Your task to perform on an android device: Open wifi settings Image 0: 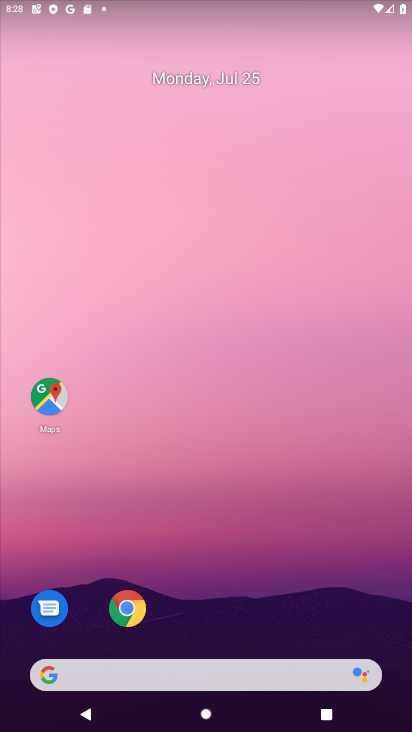
Step 0: press home button
Your task to perform on an android device: Open wifi settings Image 1: 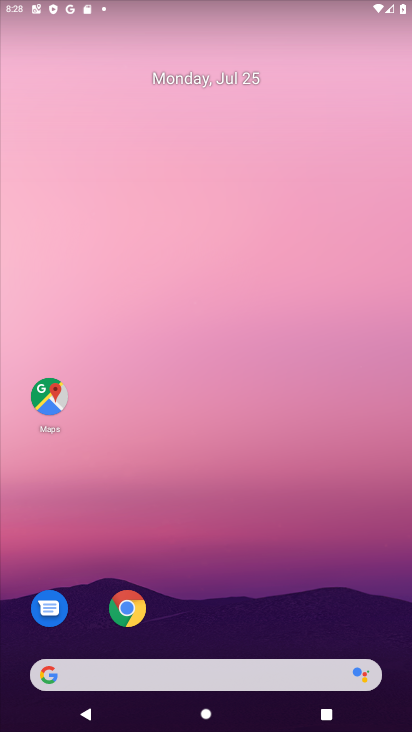
Step 1: drag from (207, 690) to (263, 88)
Your task to perform on an android device: Open wifi settings Image 2: 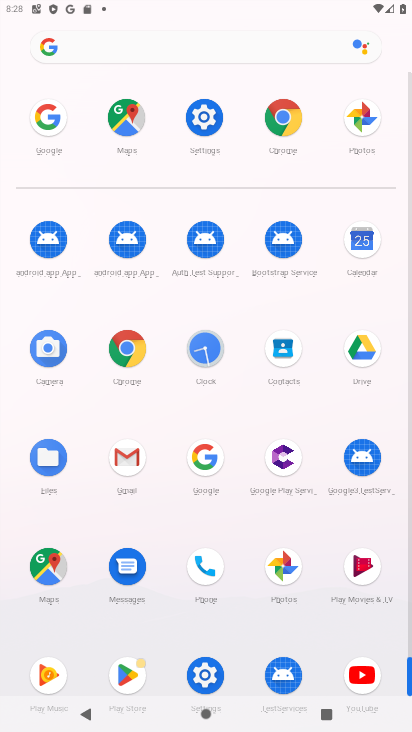
Step 2: click (213, 125)
Your task to perform on an android device: Open wifi settings Image 3: 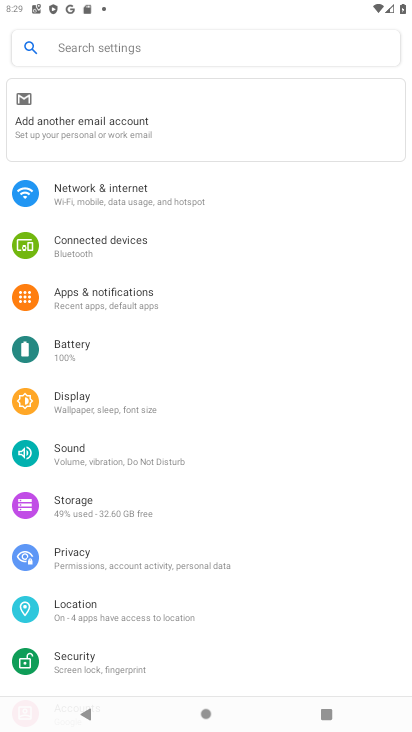
Step 3: click (132, 195)
Your task to perform on an android device: Open wifi settings Image 4: 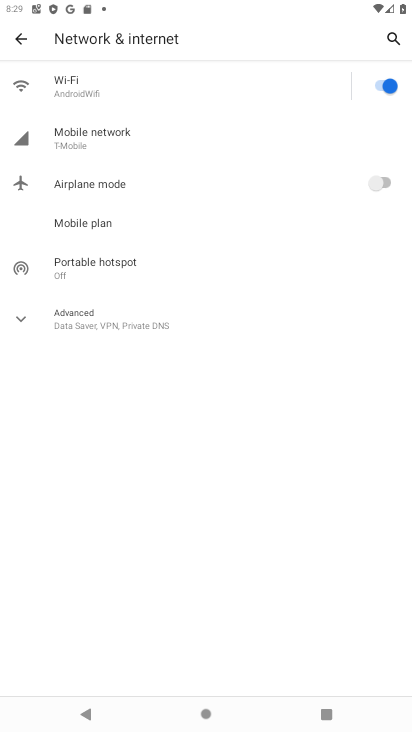
Step 4: click (249, 99)
Your task to perform on an android device: Open wifi settings Image 5: 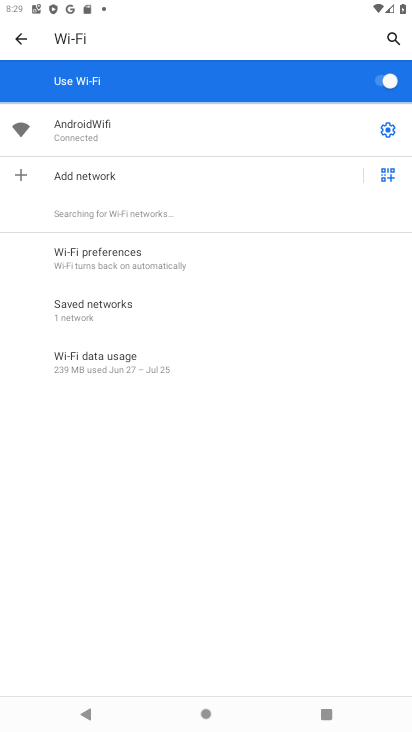
Step 5: task complete